Your task to perform on an android device: Open Yahoo.com Image 0: 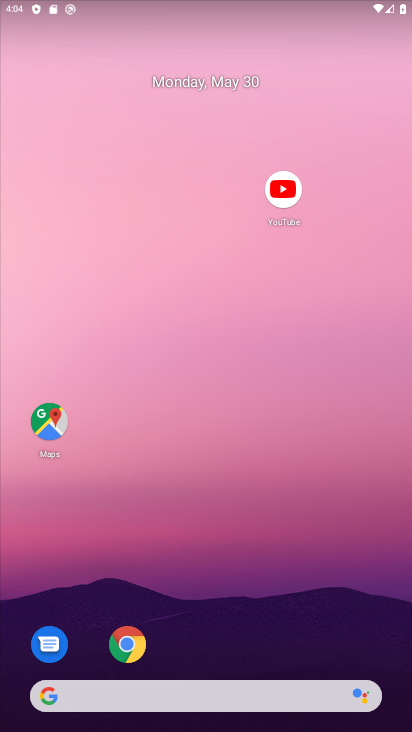
Step 0: click (122, 644)
Your task to perform on an android device: Open Yahoo.com Image 1: 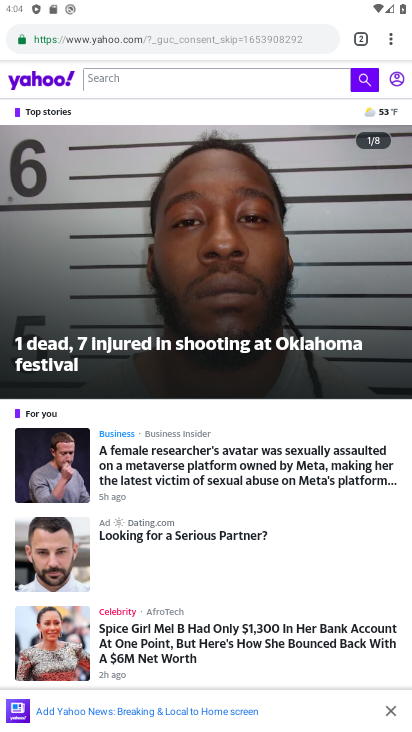
Step 1: task complete